Your task to perform on an android device: turn off translation in the chrome app Image 0: 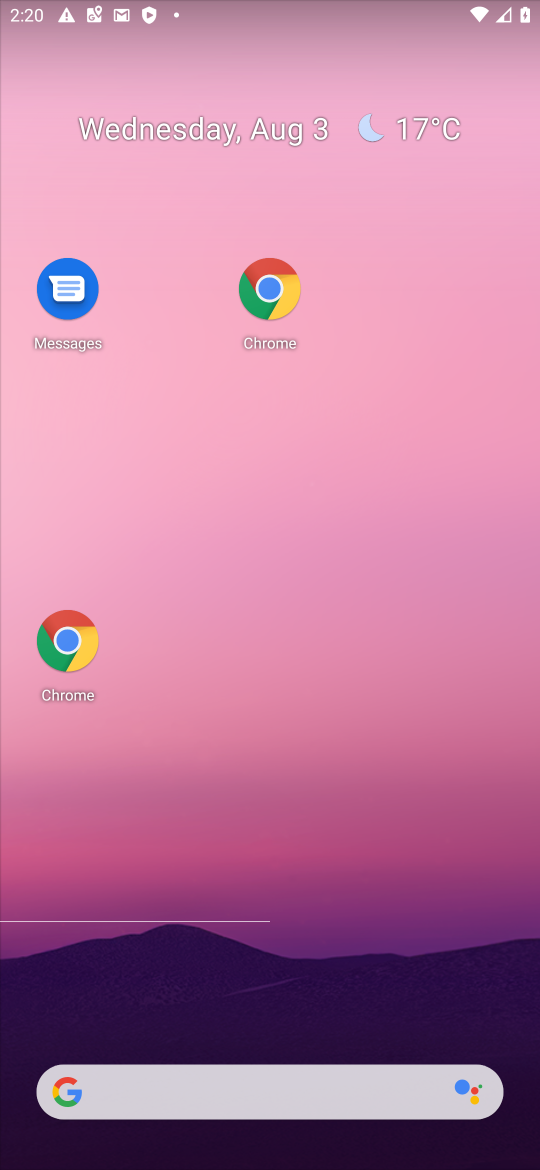
Step 0: click (73, 633)
Your task to perform on an android device: turn off translation in the chrome app Image 1: 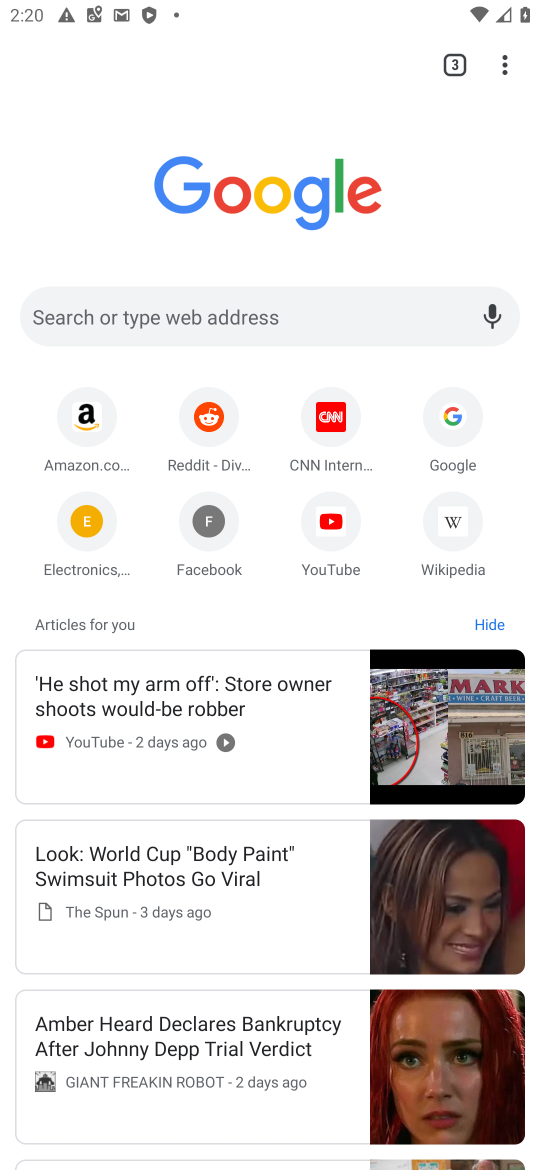
Step 1: click (511, 69)
Your task to perform on an android device: turn off translation in the chrome app Image 2: 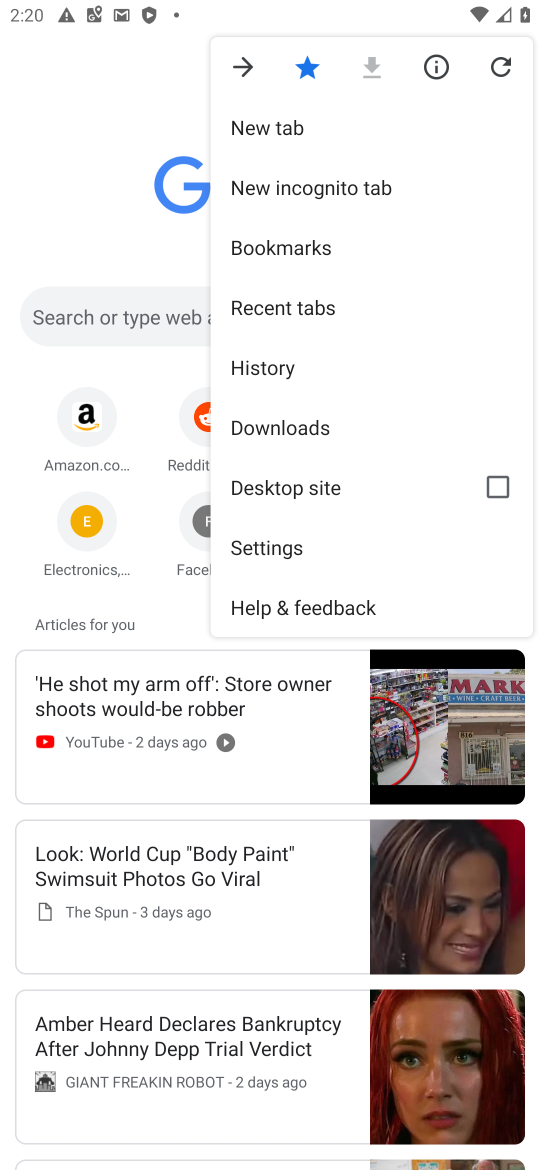
Step 2: click (251, 560)
Your task to perform on an android device: turn off translation in the chrome app Image 3: 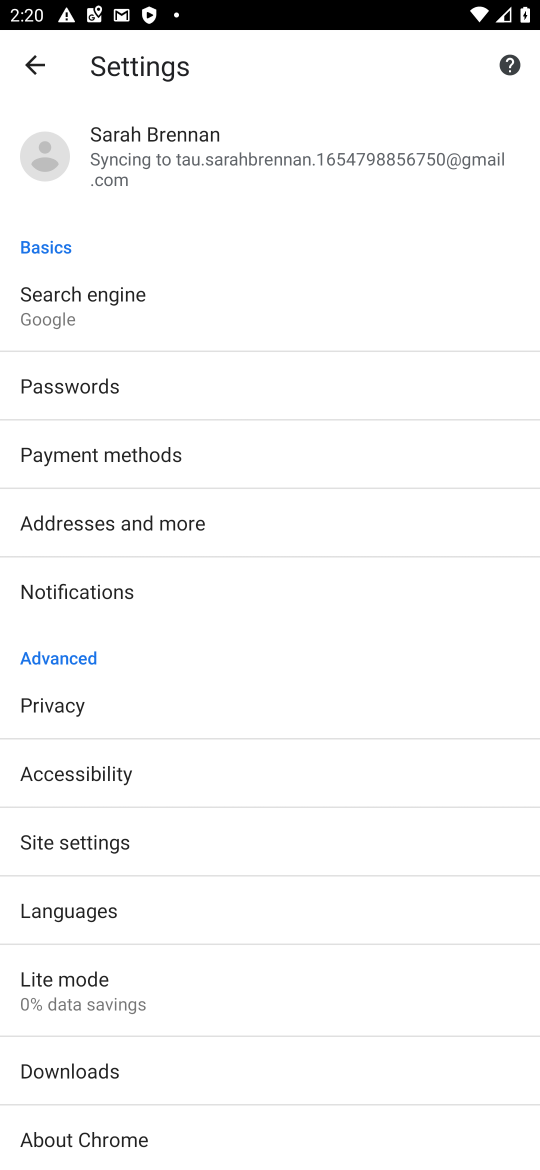
Step 3: click (195, 895)
Your task to perform on an android device: turn off translation in the chrome app Image 4: 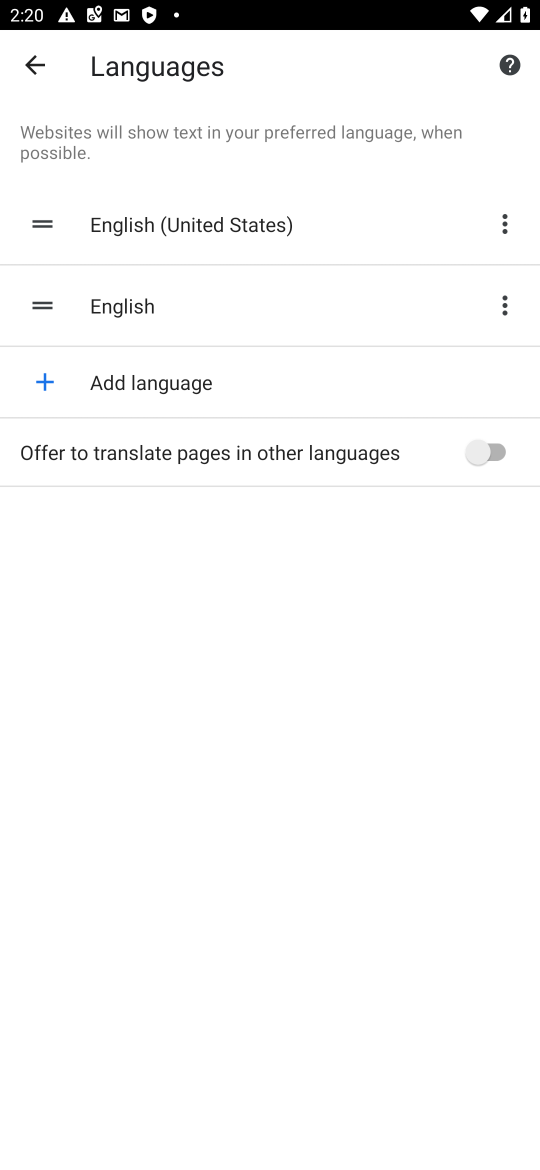
Step 4: click (477, 431)
Your task to perform on an android device: turn off translation in the chrome app Image 5: 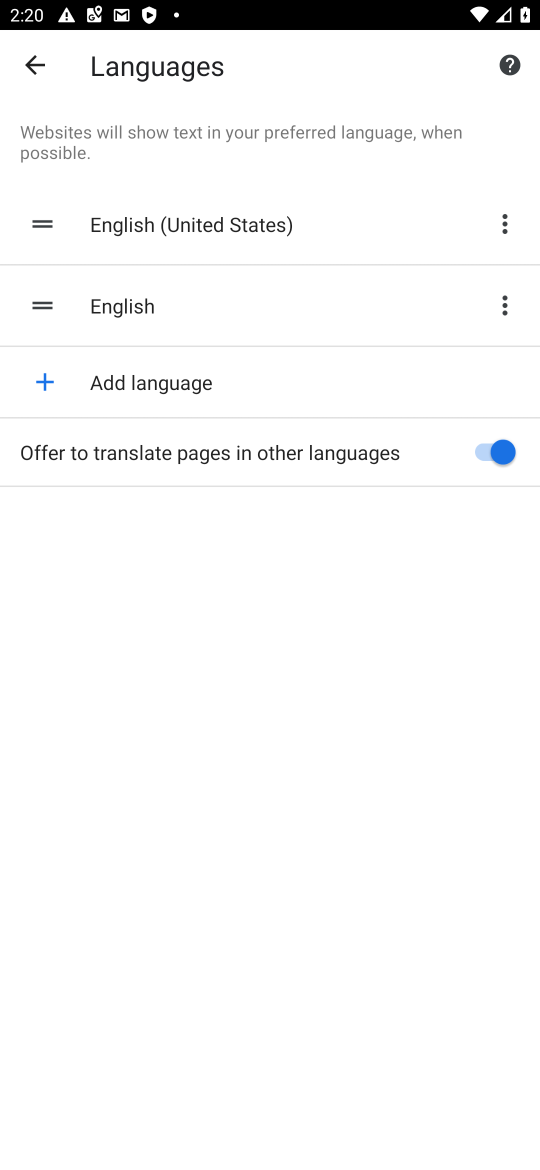
Step 5: task complete